Your task to perform on an android device: empty trash in google photos Image 0: 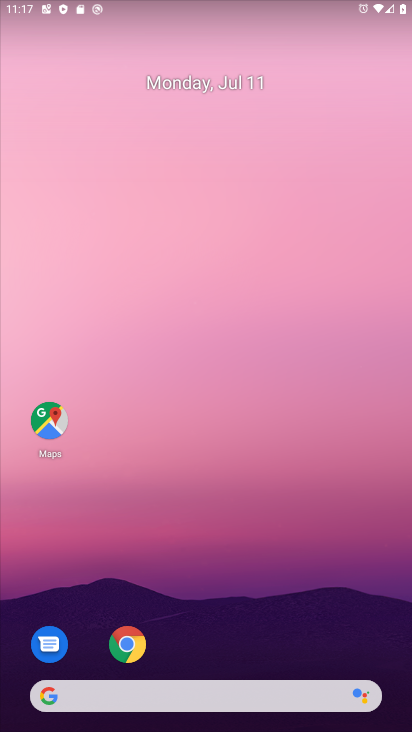
Step 0: press home button
Your task to perform on an android device: empty trash in google photos Image 1: 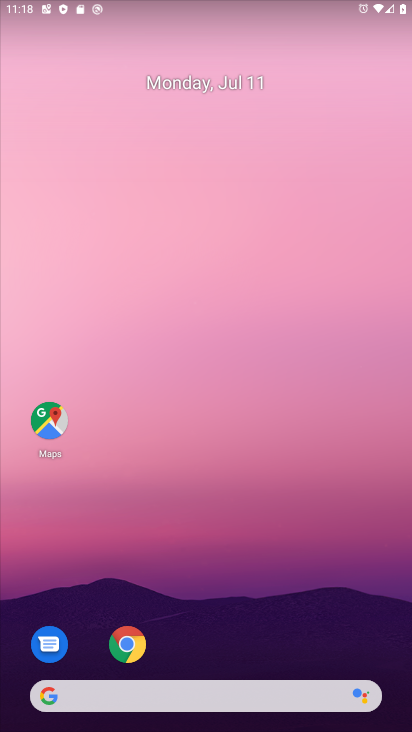
Step 1: drag from (223, 658) to (191, 14)
Your task to perform on an android device: empty trash in google photos Image 2: 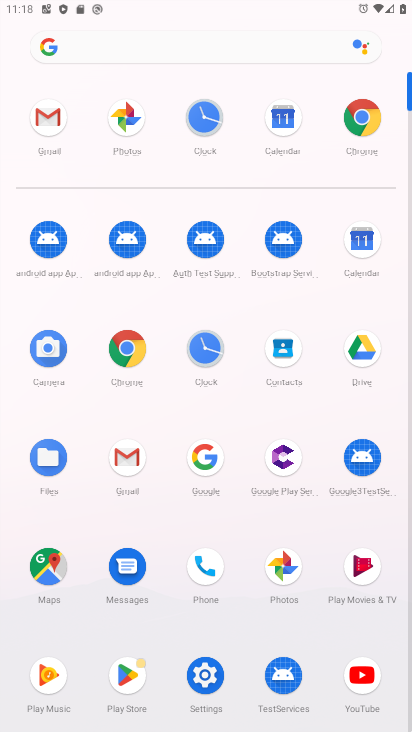
Step 2: click (284, 563)
Your task to perform on an android device: empty trash in google photos Image 3: 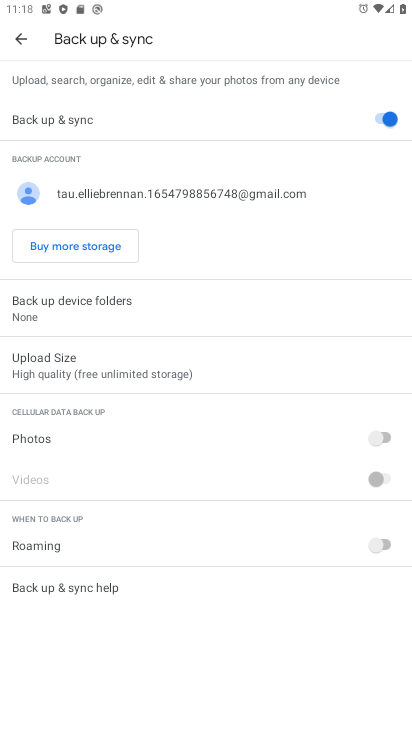
Step 3: click (20, 39)
Your task to perform on an android device: empty trash in google photos Image 4: 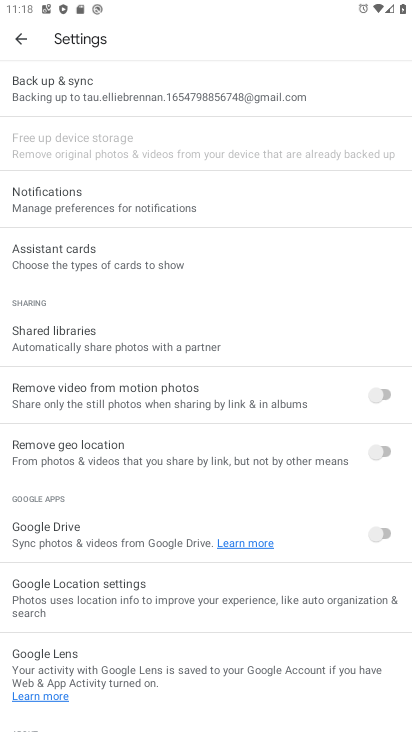
Step 4: click (20, 36)
Your task to perform on an android device: empty trash in google photos Image 5: 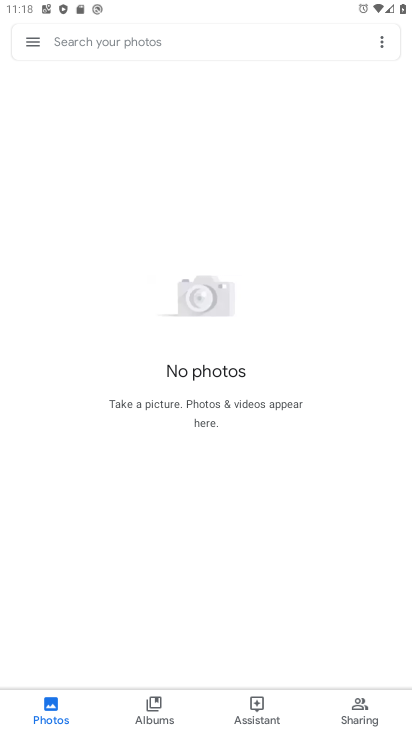
Step 5: click (34, 41)
Your task to perform on an android device: empty trash in google photos Image 6: 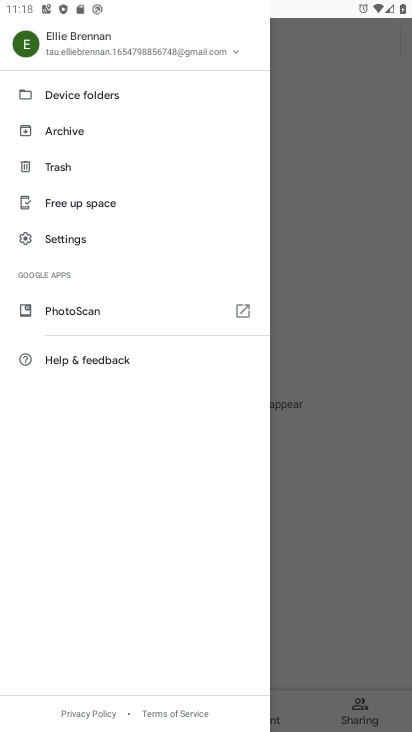
Step 6: click (65, 165)
Your task to perform on an android device: empty trash in google photos Image 7: 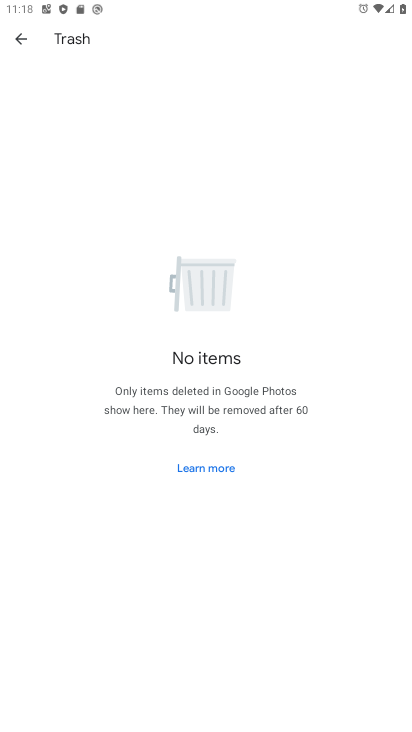
Step 7: task complete